Your task to perform on an android device: turn pop-ups on in chrome Image 0: 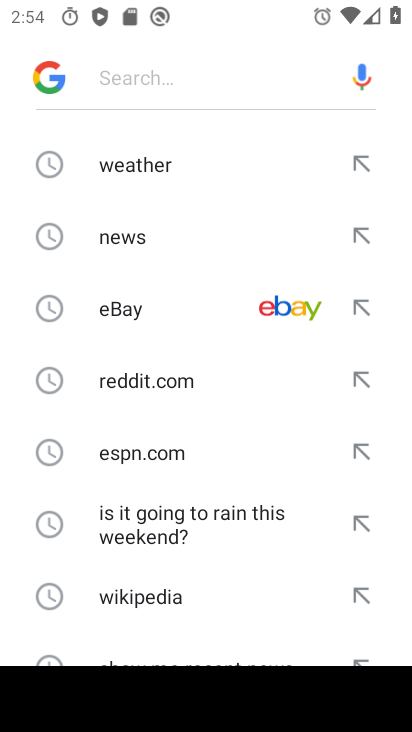
Step 0: press home button
Your task to perform on an android device: turn pop-ups on in chrome Image 1: 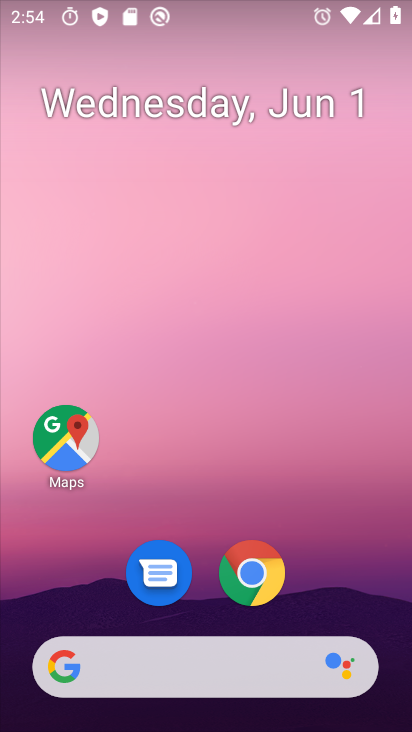
Step 1: click (254, 580)
Your task to perform on an android device: turn pop-ups on in chrome Image 2: 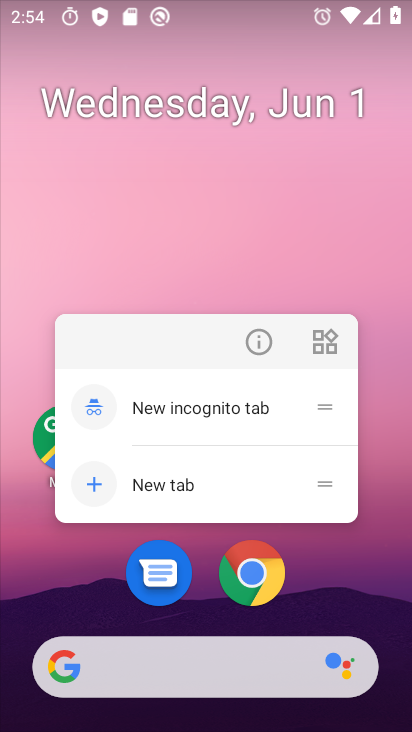
Step 2: click (245, 596)
Your task to perform on an android device: turn pop-ups on in chrome Image 3: 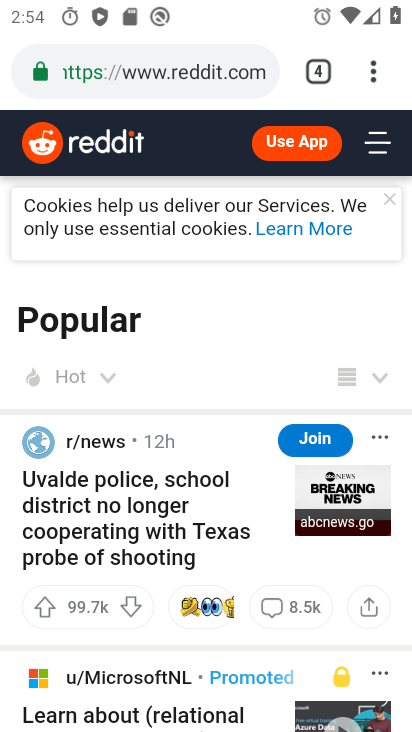
Step 3: drag from (372, 76) to (156, 581)
Your task to perform on an android device: turn pop-ups on in chrome Image 4: 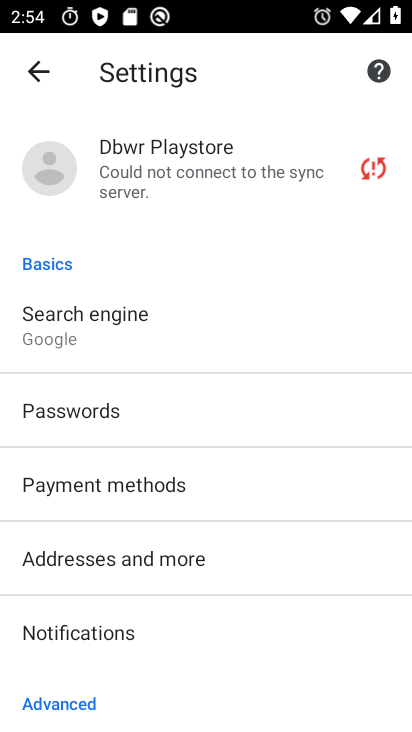
Step 4: drag from (202, 639) to (268, 246)
Your task to perform on an android device: turn pop-ups on in chrome Image 5: 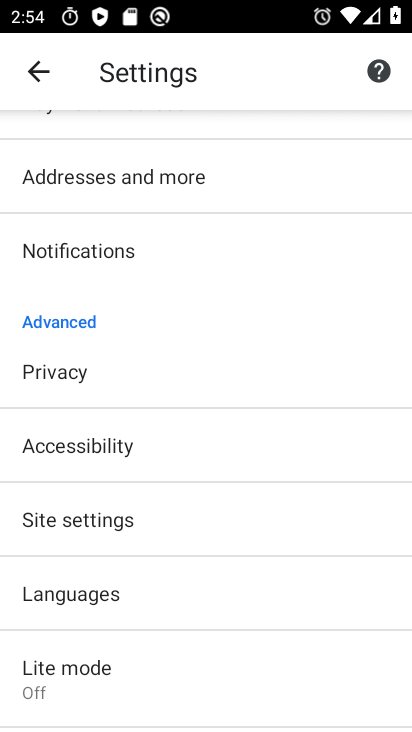
Step 5: drag from (198, 591) to (198, 377)
Your task to perform on an android device: turn pop-ups on in chrome Image 6: 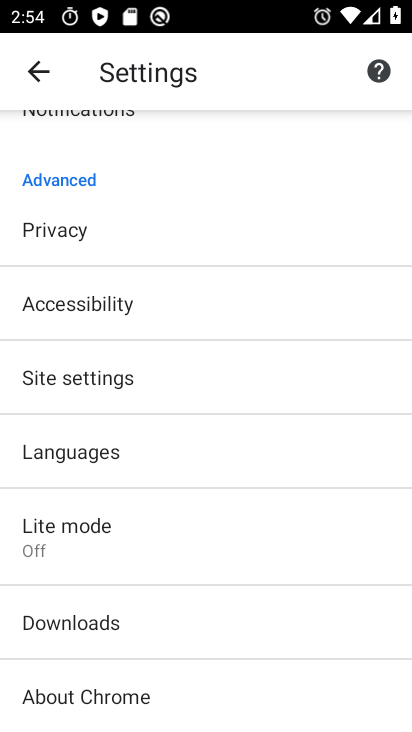
Step 6: click (131, 372)
Your task to perform on an android device: turn pop-ups on in chrome Image 7: 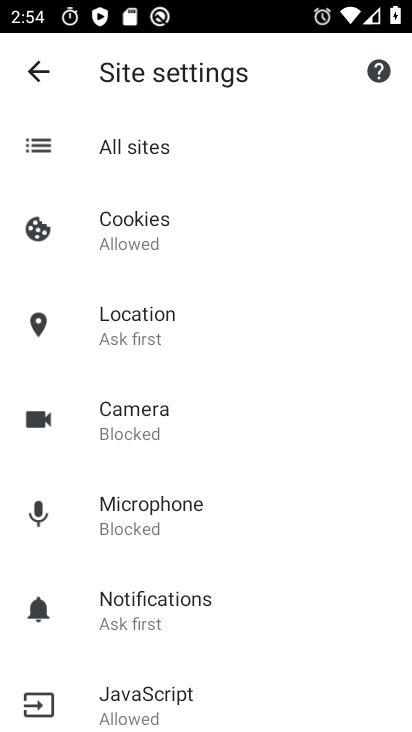
Step 7: drag from (220, 572) to (247, 290)
Your task to perform on an android device: turn pop-ups on in chrome Image 8: 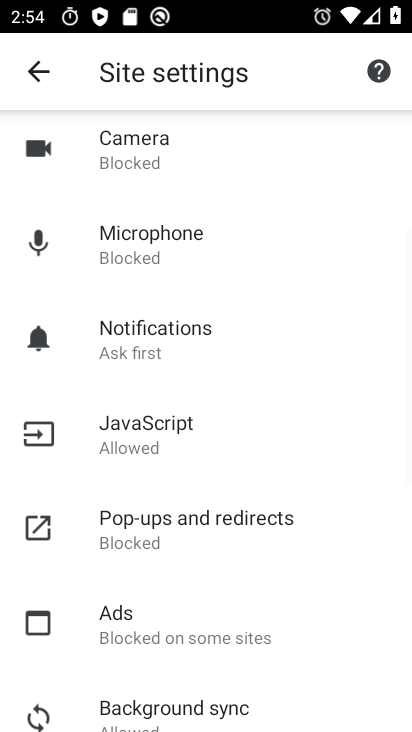
Step 8: drag from (204, 584) to (218, 447)
Your task to perform on an android device: turn pop-ups on in chrome Image 9: 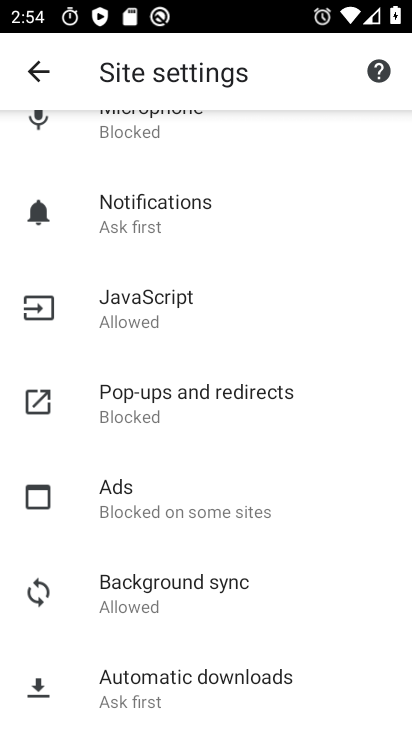
Step 9: click (218, 429)
Your task to perform on an android device: turn pop-ups on in chrome Image 10: 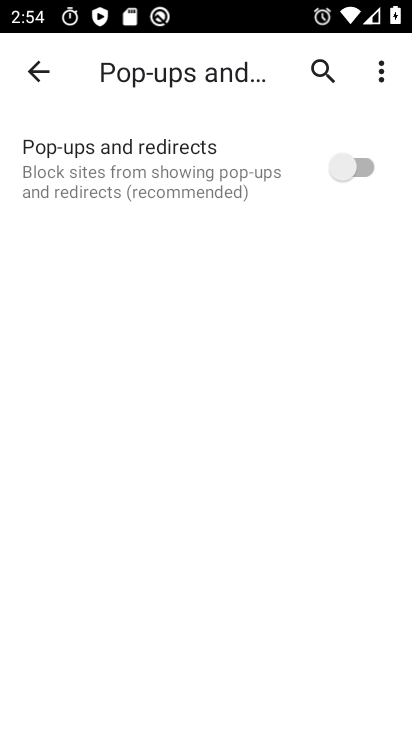
Step 10: click (365, 149)
Your task to perform on an android device: turn pop-ups on in chrome Image 11: 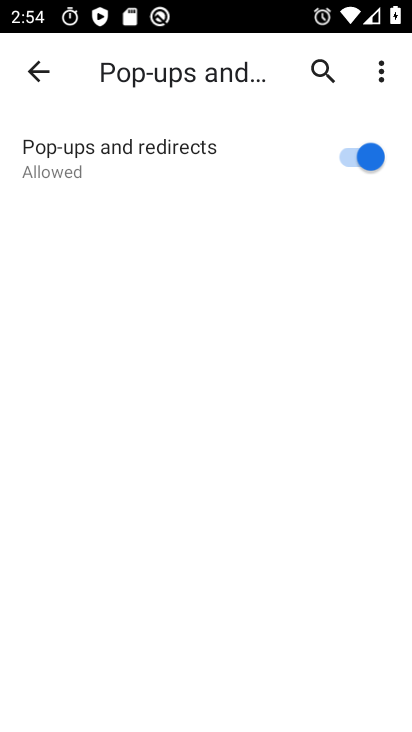
Step 11: task complete